Your task to perform on an android device: add a label to a message in the gmail app Image 0: 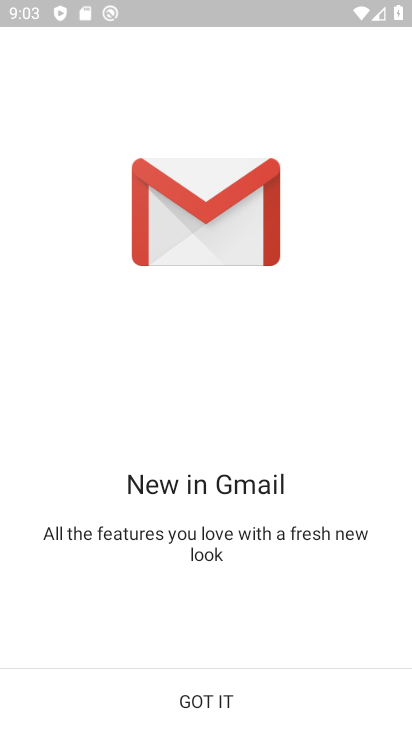
Step 0: task complete